Your task to perform on an android device: Search for hotels in Buenos aires Image 0: 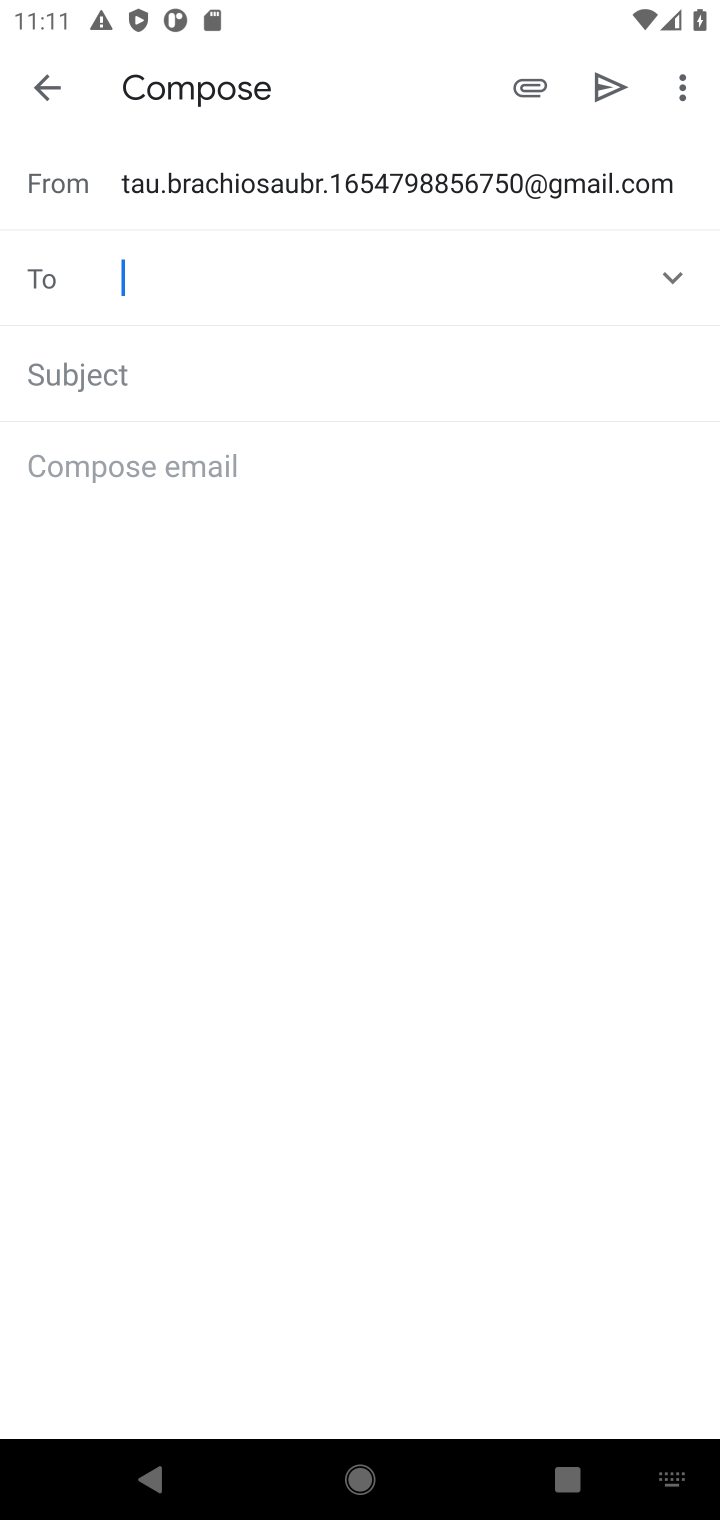
Step 0: press home button
Your task to perform on an android device: Search for hotels in Buenos aires Image 1: 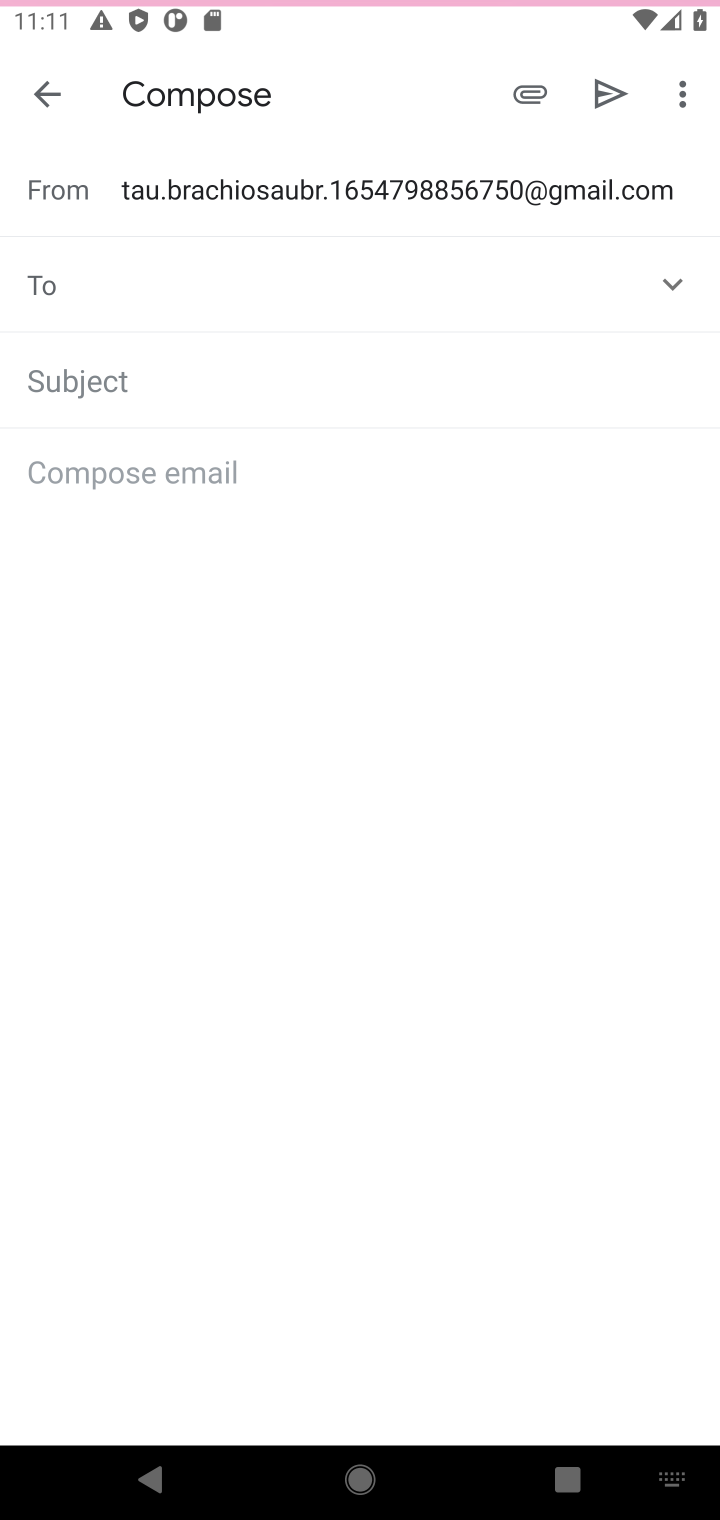
Step 1: press home button
Your task to perform on an android device: Search for hotels in Buenos aires Image 2: 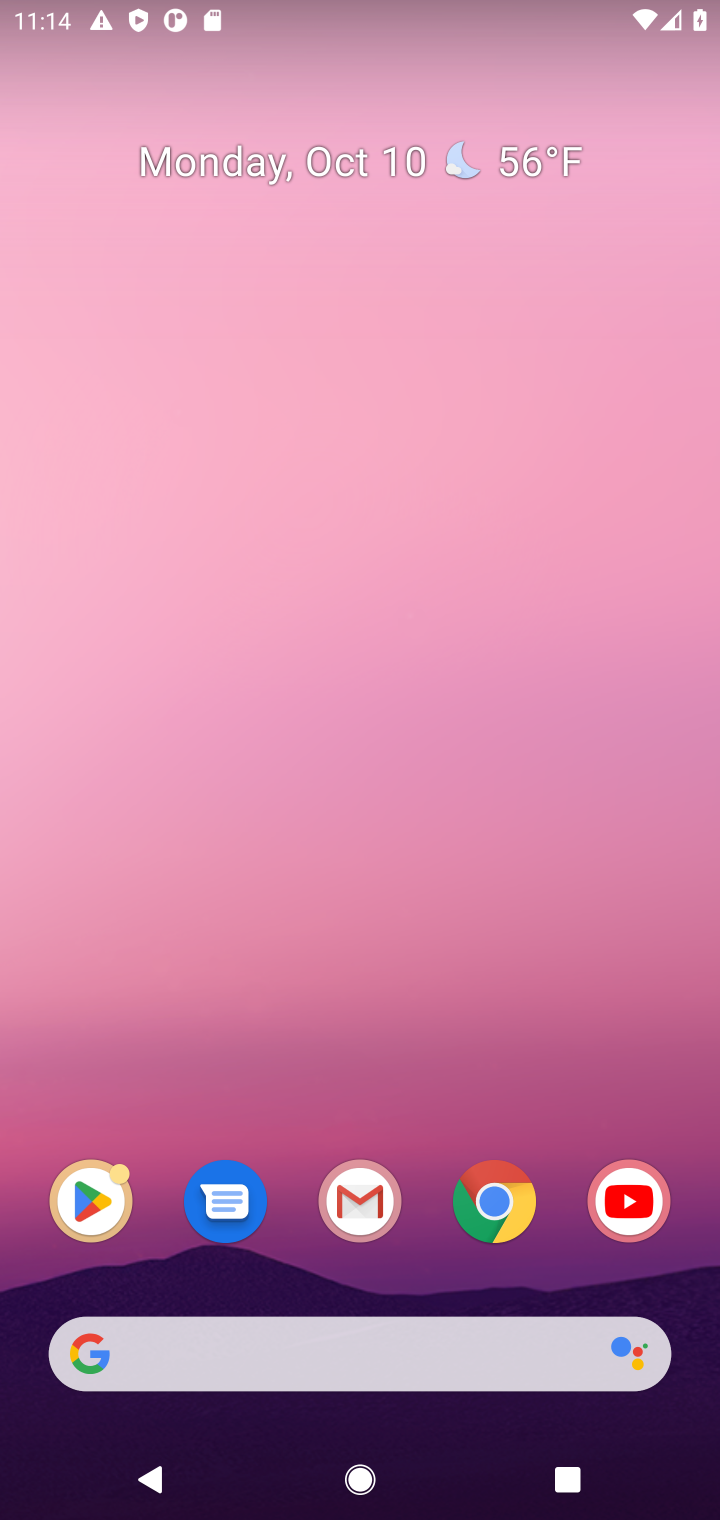
Step 2: click (90, 1341)
Your task to perform on an android device: Search for hotels in Buenos aires Image 3: 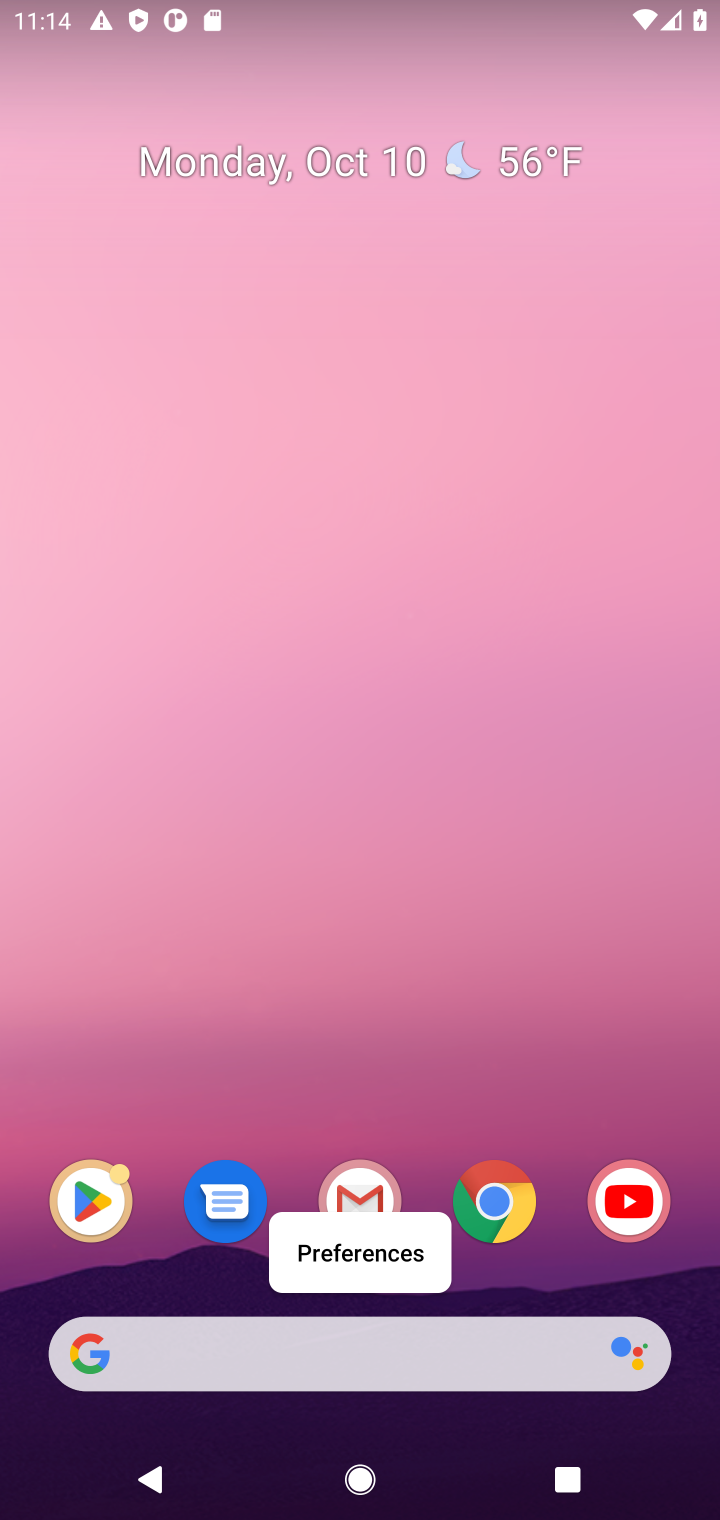
Step 3: click (90, 1341)
Your task to perform on an android device: Search for hotels in Buenos aires Image 4: 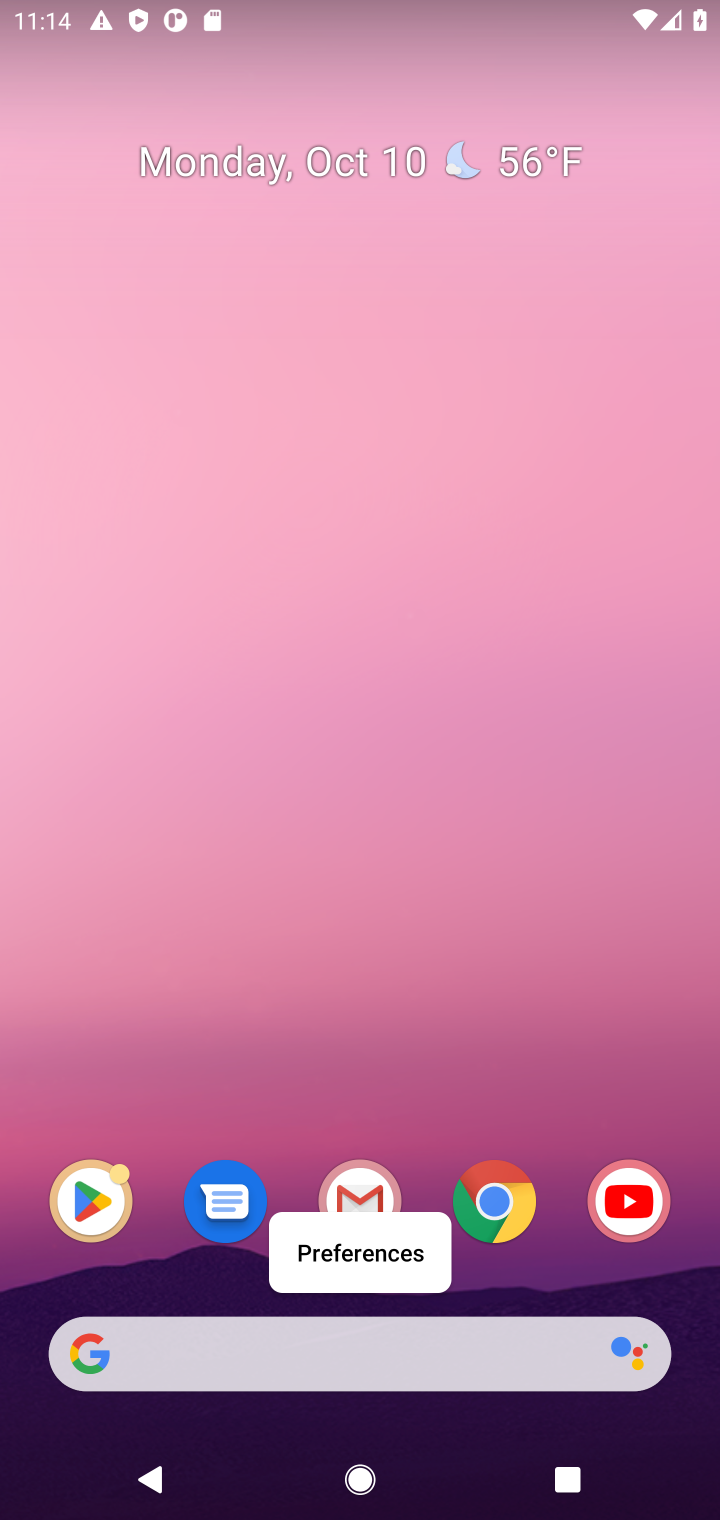
Step 4: click (90, 1341)
Your task to perform on an android device: Search for hotels in Buenos aires Image 5: 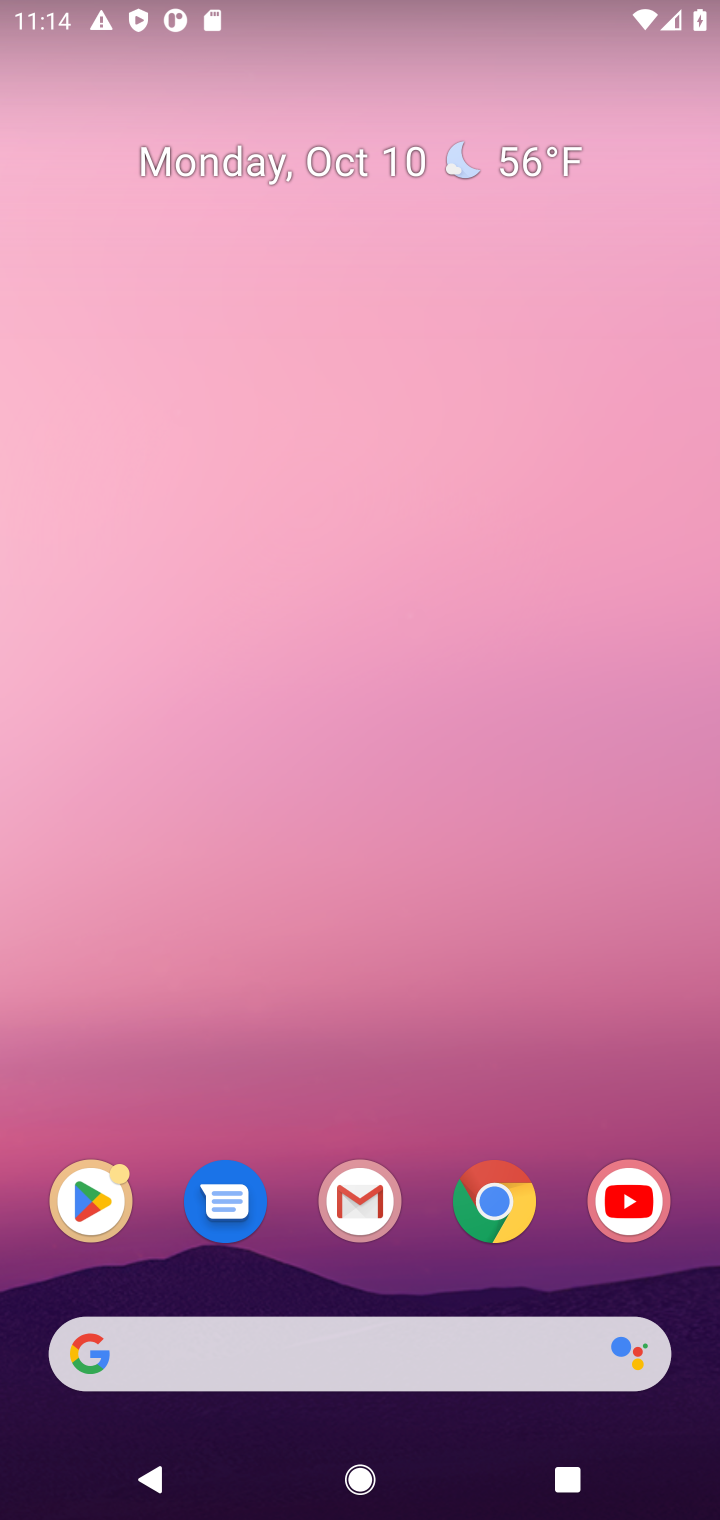
Step 5: click (86, 1348)
Your task to perform on an android device: Search for hotels in Buenos aires Image 6: 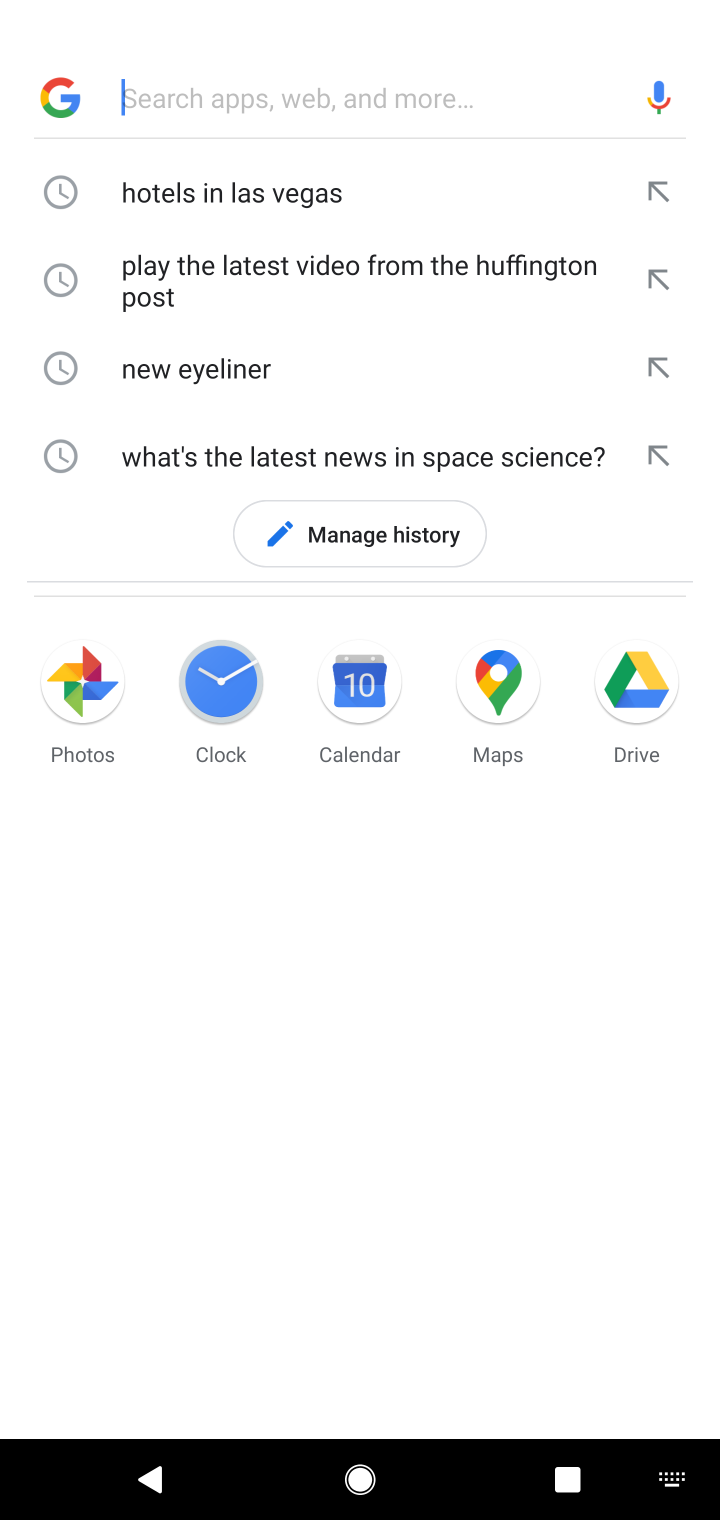
Step 6: click (302, 77)
Your task to perform on an android device: Search for hotels in Buenos aires Image 7: 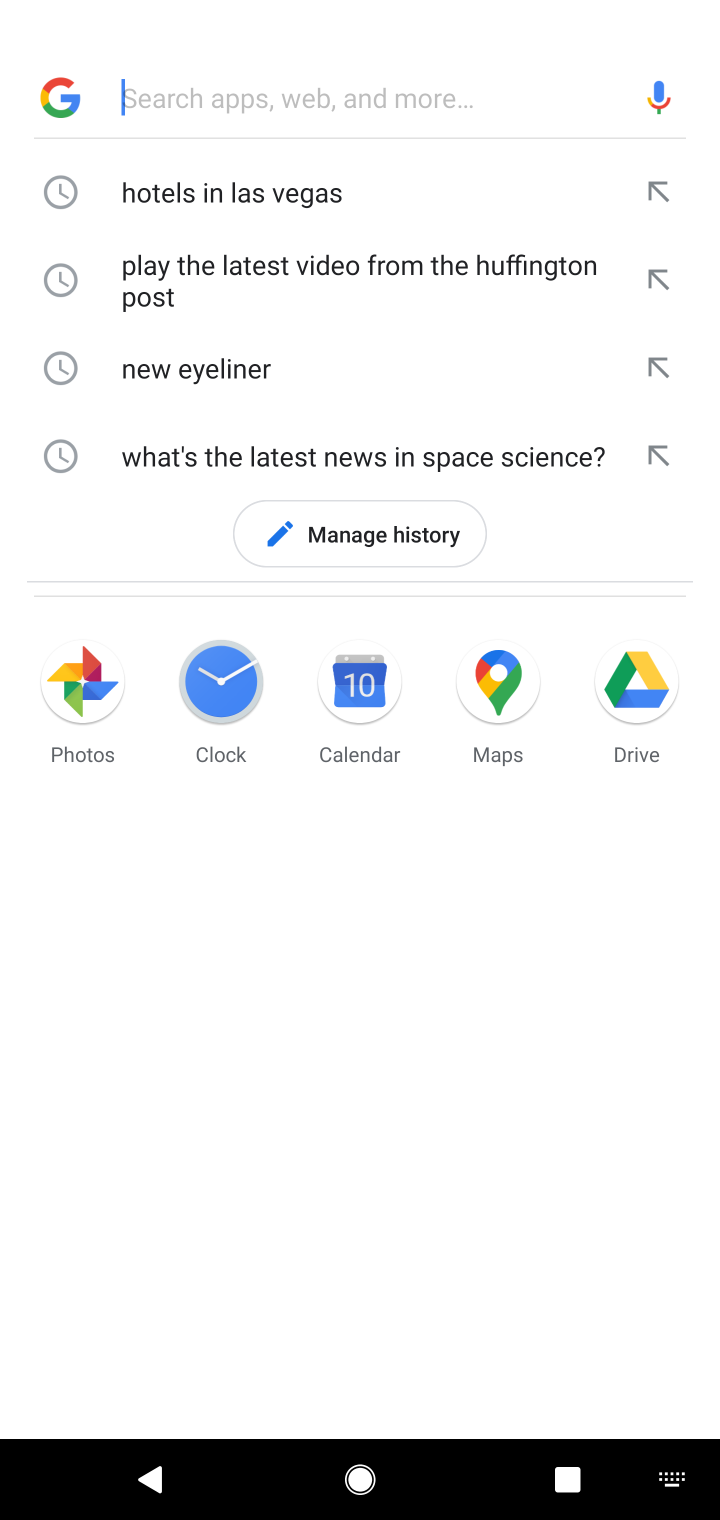
Step 7: type "hotels in Buenos aires"
Your task to perform on an android device: Search for hotels in Buenos aires Image 8: 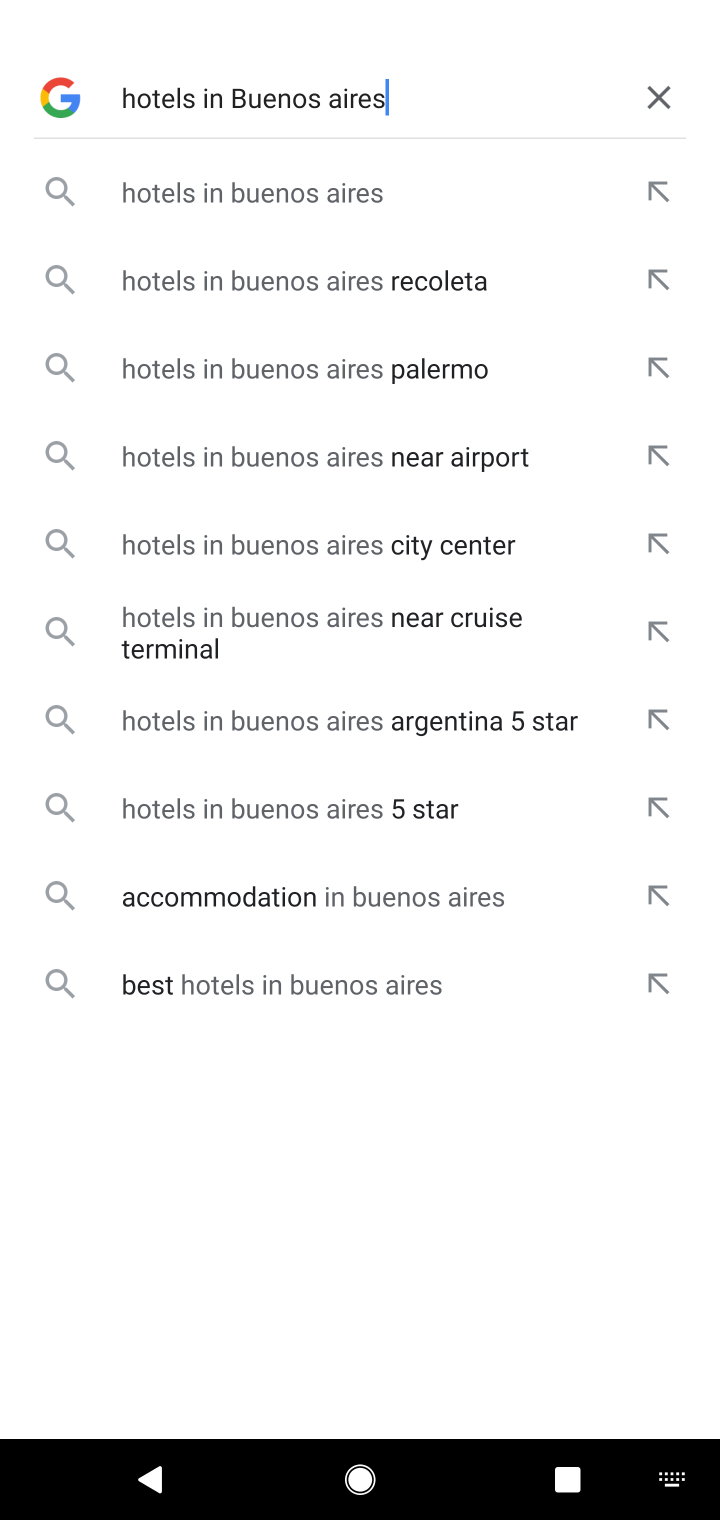
Step 8: click (333, 184)
Your task to perform on an android device: Search for hotels in Buenos aires Image 9: 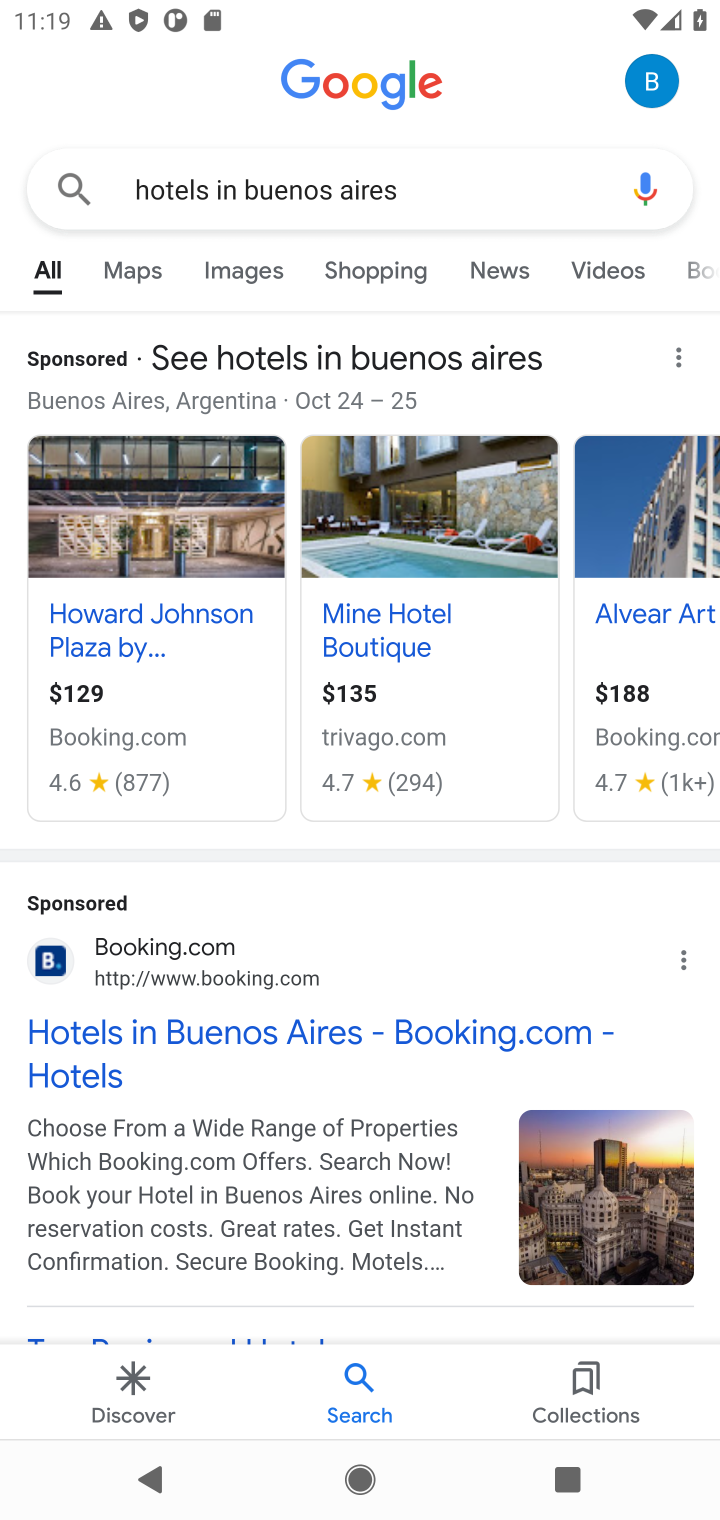
Step 9: task complete